Your task to perform on an android device: Go to location settings Image 0: 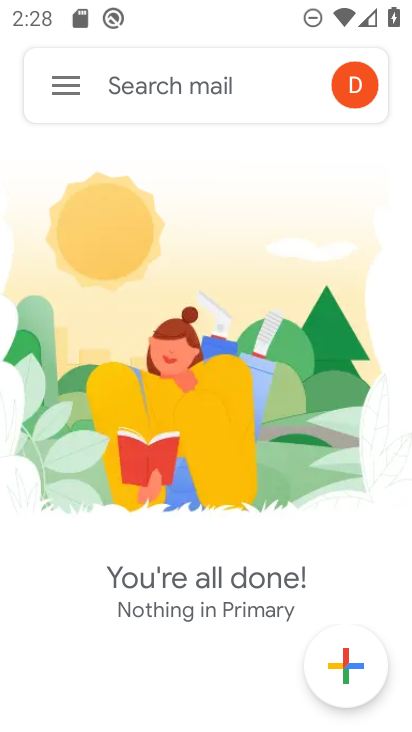
Step 0: press back button
Your task to perform on an android device: Go to location settings Image 1: 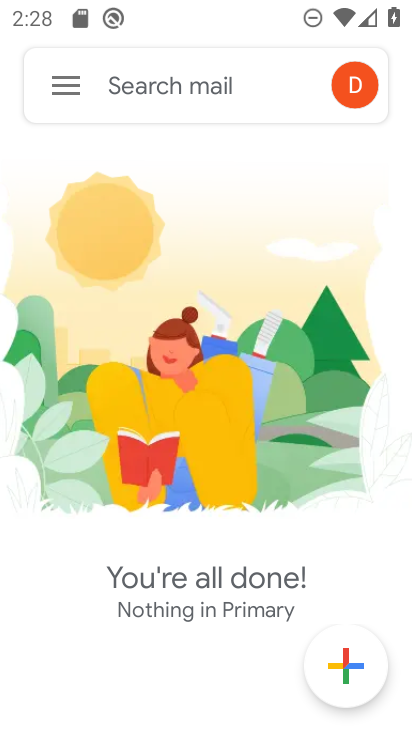
Step 1: press home button
Your task to perform on an android device: Go to location settings Image 2: 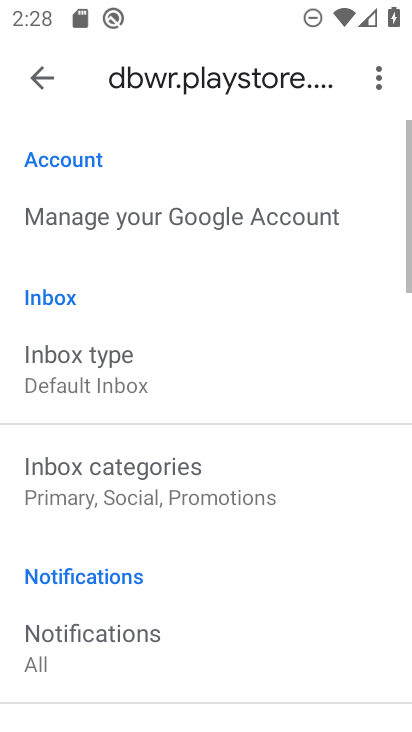
Step 2: press home button
Your task to perform on an android device: Go to location settings Image 3: 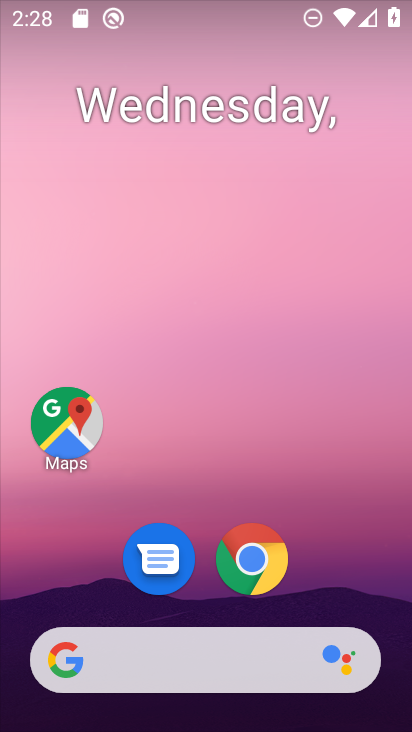
Step 3: drag from (350, 613) to (362, 8)
Your task to perform on an android device: Go to location settings Image 4: 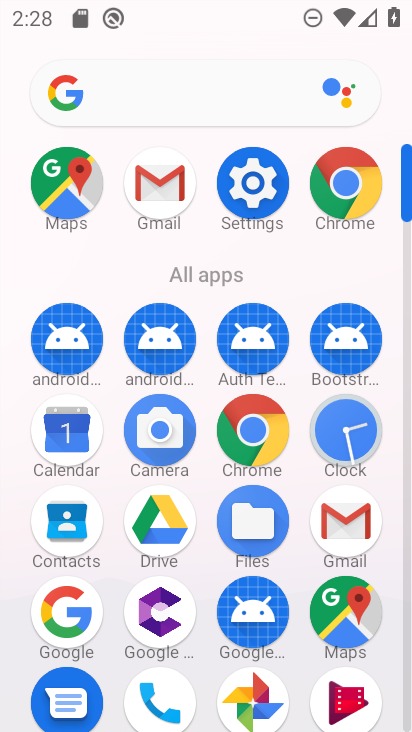
Step 4: click (246, 173)
Your task to perform on an android device: Go to location settings Image 5: 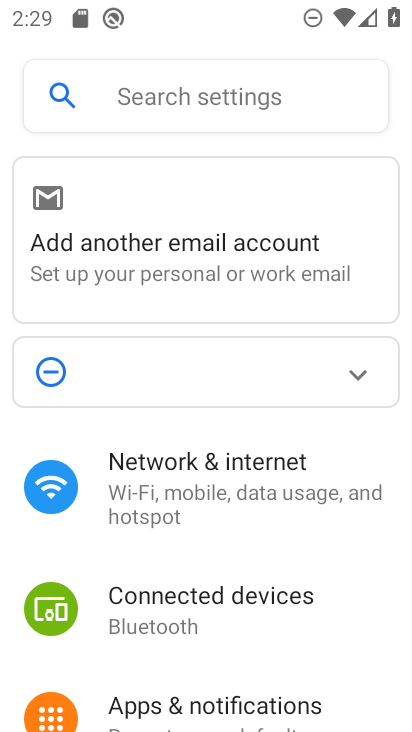
Step 5: drag from (287, 601) to (262, 137)
Your task to perform on an android device: Go to location settings Image 6: 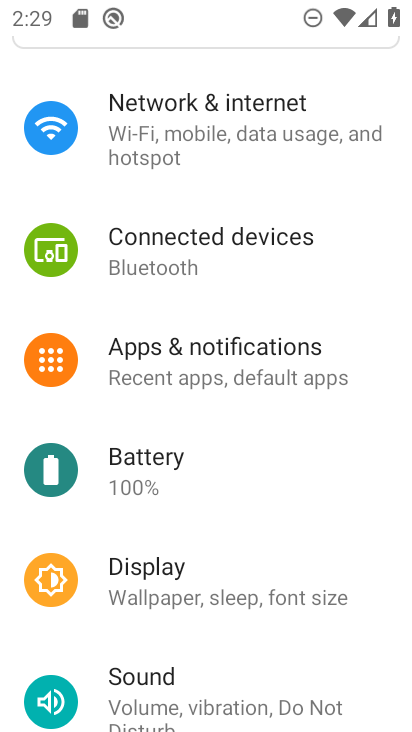
Step 6: drag from (301, 534) to (258, 138)
Your task to perform on an android device: Go to location settings Image 7: 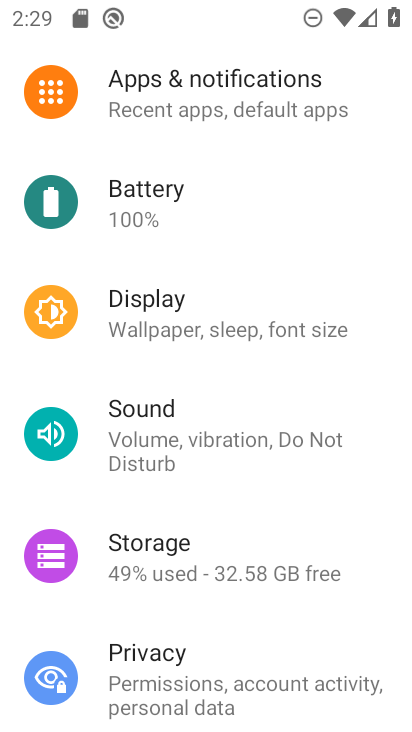
Step 7: drag from (294, 503) to (262, 168)
Your task to perform on an android device: Go to location settings Image 8: 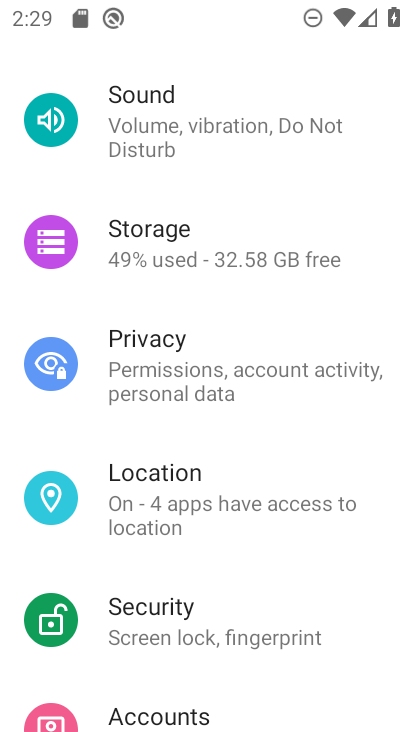
Step 8: click (204, 513)
Your task to perform on an android device: Go to location settings Image 9: 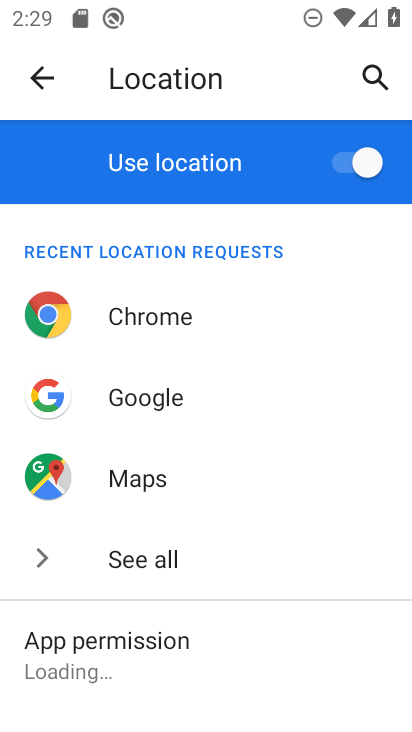
Step 9: task complete